Your task to perform on an android device: toggle notification dots Image 0: 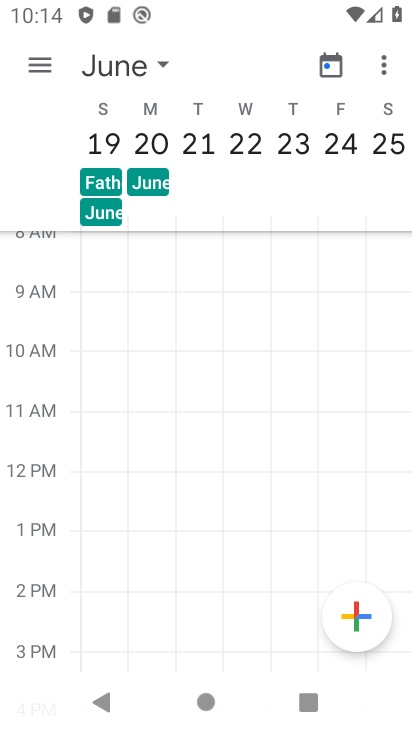
Step 0: press home button
Your task to perform on an android device: toggle notification dots Image 1: 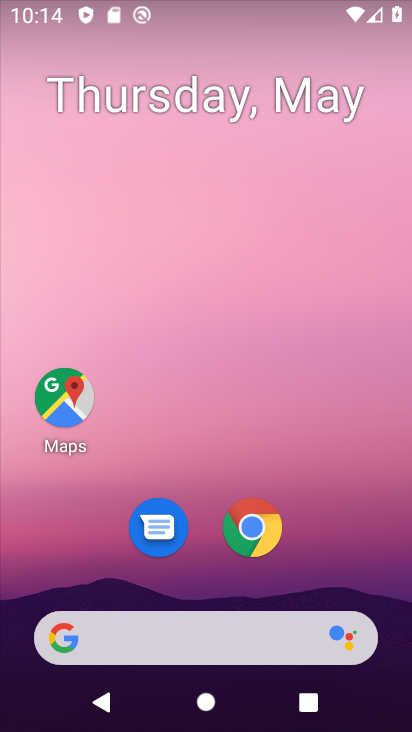
Step 1: drag from (233, 729) to (231, 13)
Your task to perform on an android device: toggle notification dots Image 2: 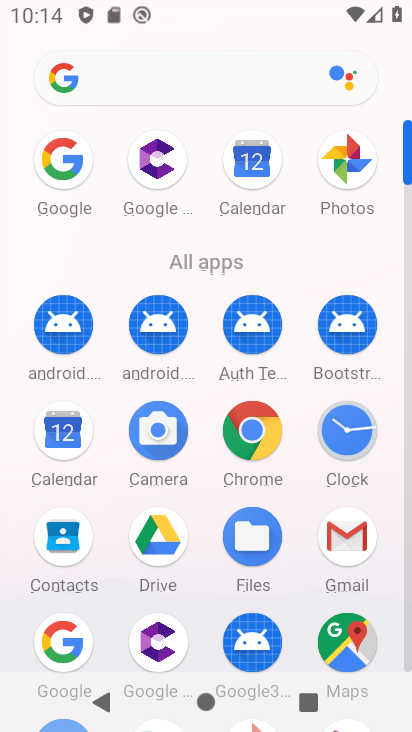
Step 2: drag from (198, 660) to (185, 285)
Your task to perform on an android device: toggle notification dots Image 3: 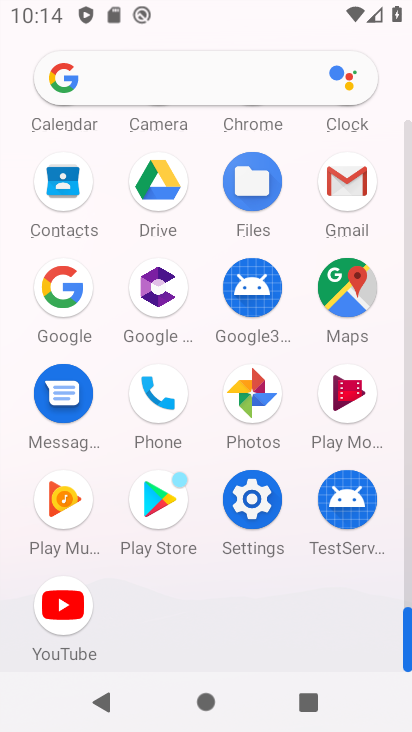
Step 3: click (253, 499)
Your task to perform on an android device: toggle notification dots Image 4: 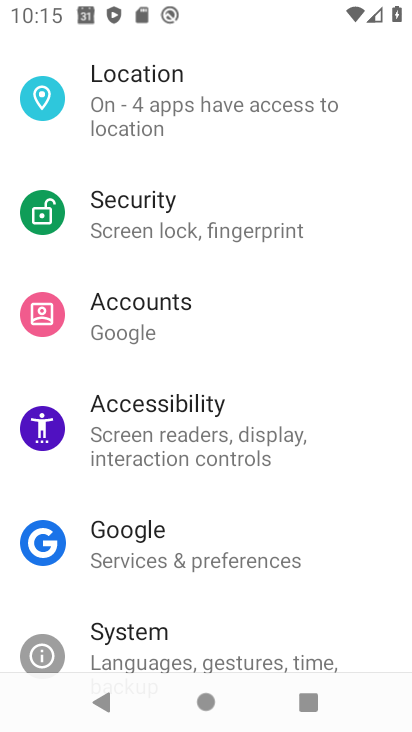
Step 4: drag from (225, 153) to (220, 527)
Your task to perform on an android device: toggle notification dots Image 5: 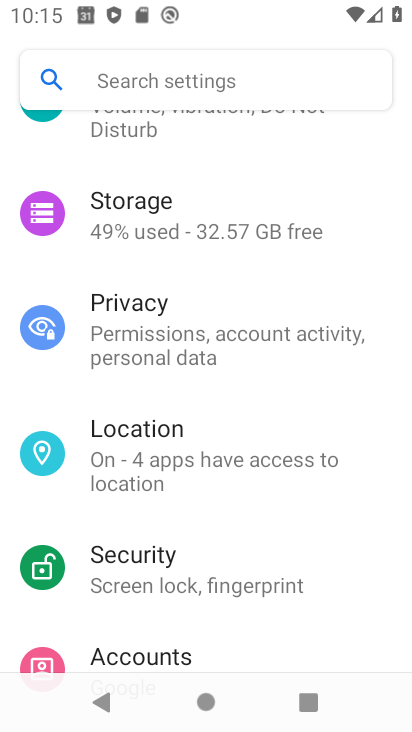
Step 5: drag from (214, 166) to (208, 522)
Your task to perform on an android device: toggle notification dots Image 6: 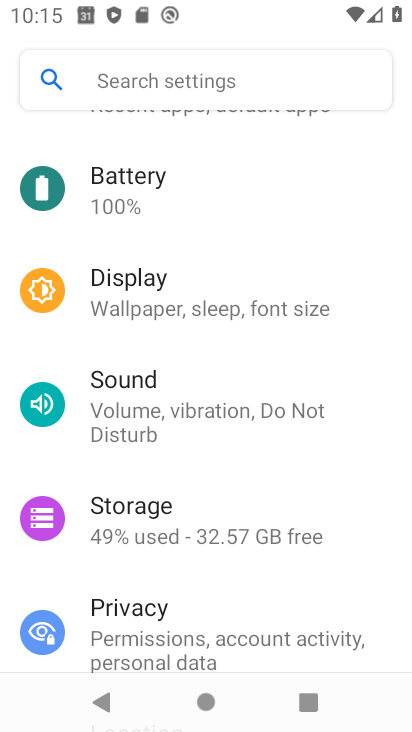
Step 6: drag from (217, 202) to (223, 536)
Your task to perform on an android device: toggle notification dots Image 7: 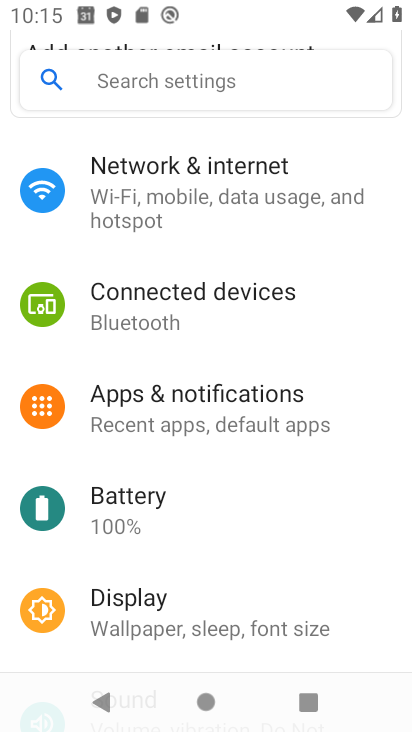
Step 7: click (181, 398)
Your task to perform on an android device: toggle notification dots Image 8: 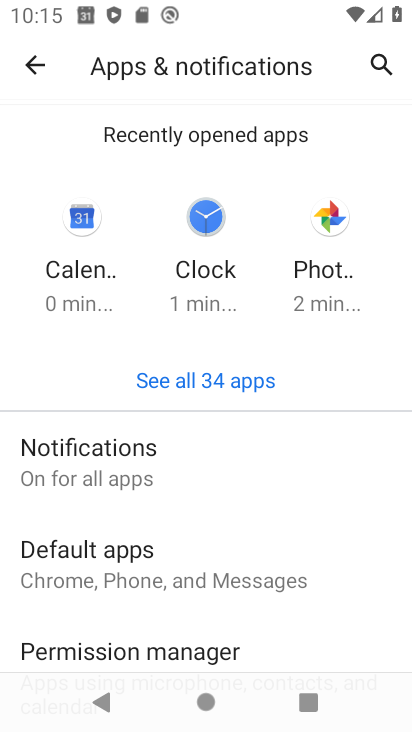
Step 8: click (107, 461)
Your task to perform on an android device: toggle notification dots Image 9: 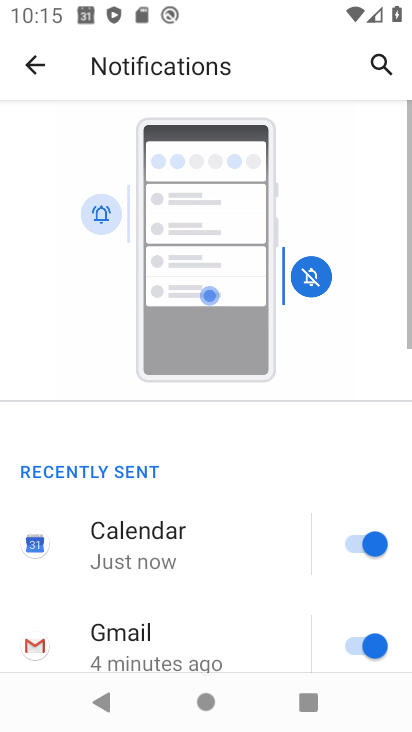
Step 9: drag from (222, 642) to (224, 299)
Your task to perform on an android device: toggle notification dots Image 10: 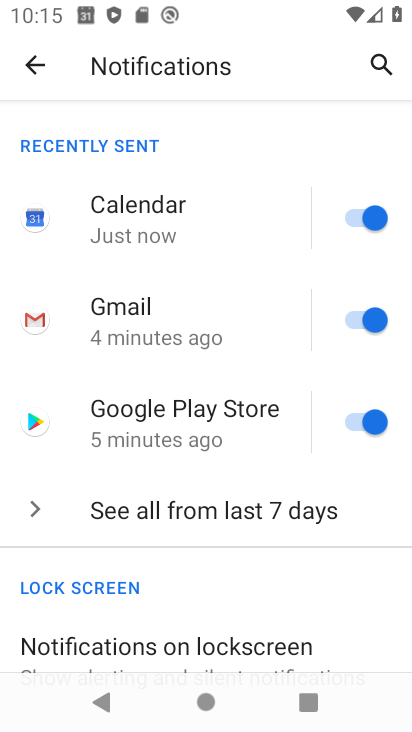
Step 10: drag from (277, 631) to (277, 271)
Your task to perform on an android device: toggle notification dots Image 11: 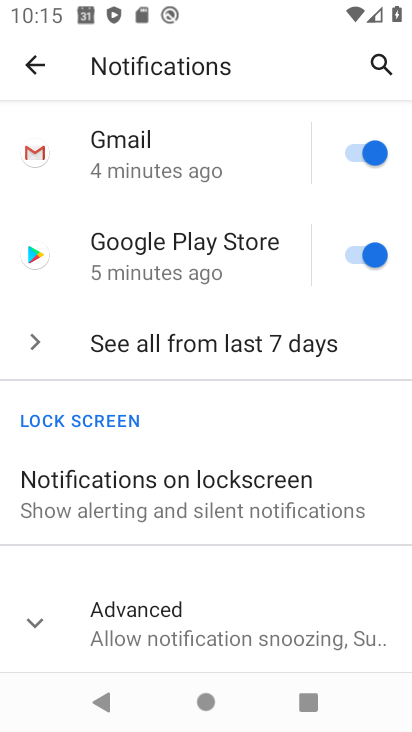
Step 11: click (191, 623)
Your task to perform on an android device: toggle notification dots Image 12: 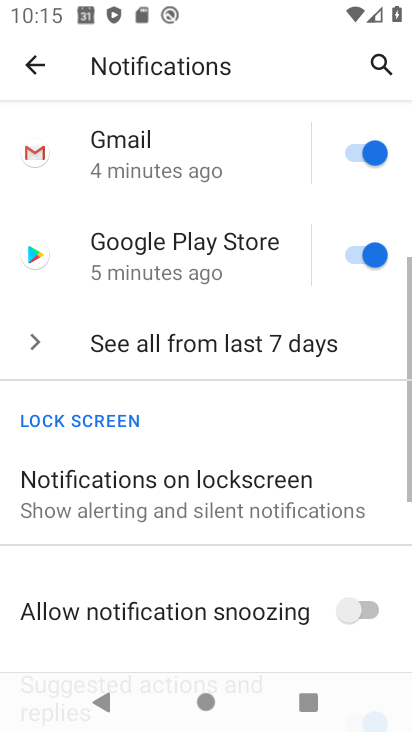
Step 12: drag from (243, 646) to (243, 301)
Your task to perform on an android device: toggle notification dots Image 13: 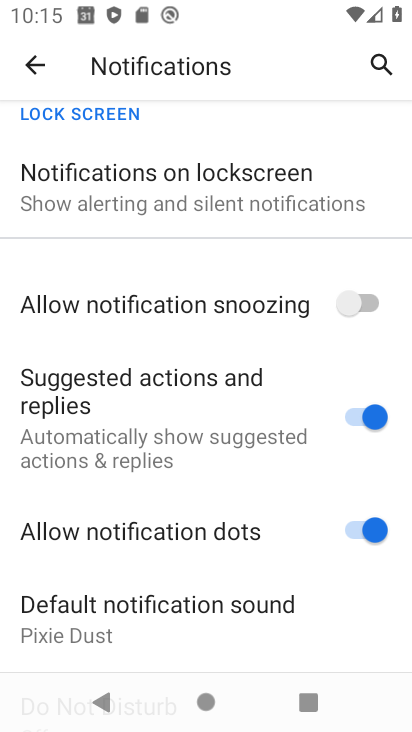
Step 13: click (353, 531)
Your task to perform on an android device: toggle notification dots Image 14: 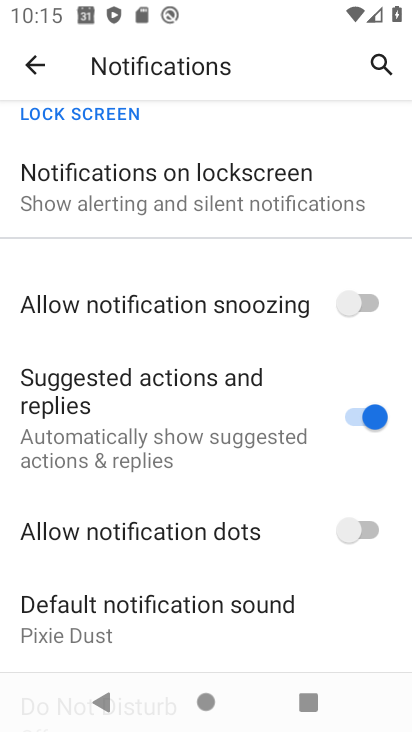
Step 14: task complete